Your task to perform on an android device: open app "Spotify" (install if not already installed) Image 0: 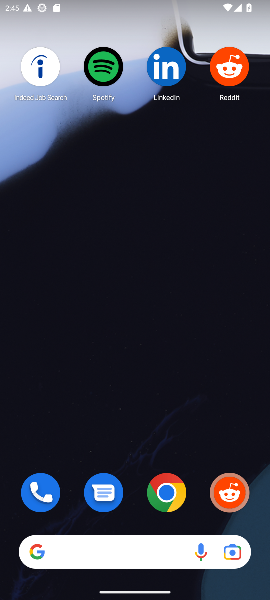
Step 0: drag from (132, 522) to (114, 13)
Your task to perform on an android device: open app "Spotify" (install if not already installed) Image 1: 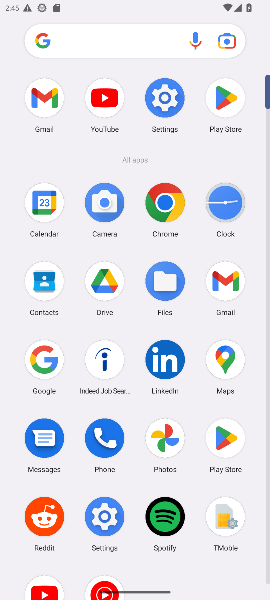
Step 1: click (223, 94)
Your task to perform on an android device: open app "Spotify" (install if not already installed) Image 2: 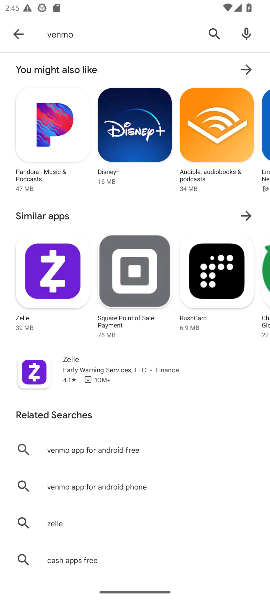
Step 2: click (220, 23)
Your task to perform on an android device: open app "Spotify" (install if not already installed) Image 3: 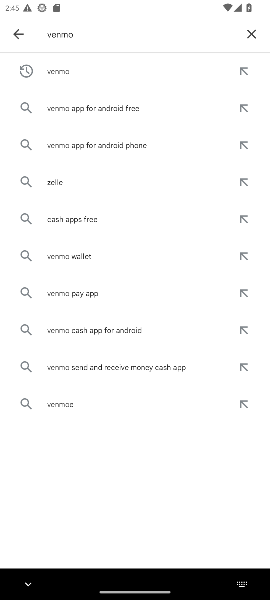
Step 3: click (247, 32)
Your task to perform on an android device: open app "Spotify" (install if not already installed) Image 4: 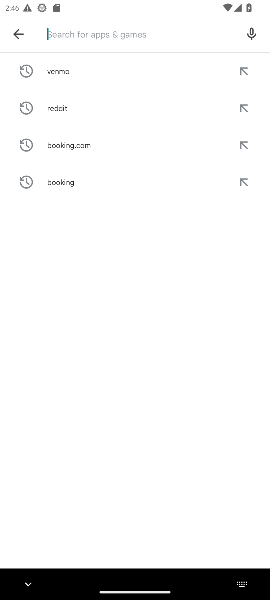
Step 4: type "spotfy"
Your task to perform on an android device: open app "Spotify" (install if not already installed) Image 5: 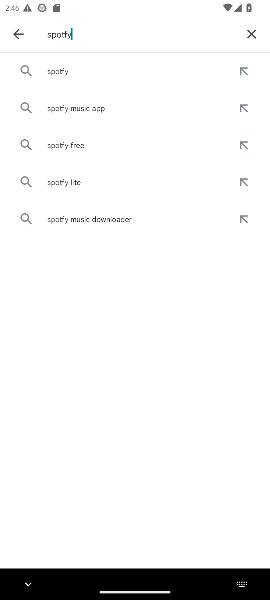
Step 5: click (92, 67)
Your task to perform on an android device: open app "Spotify" (install if not already installed) Image 6: 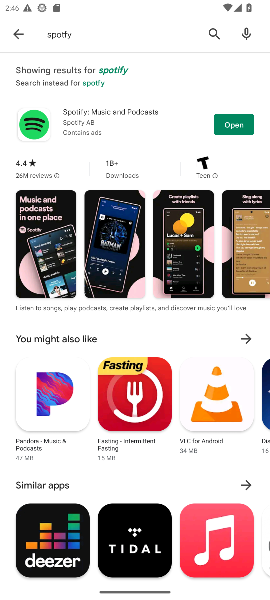
Step 6: click (222, 133)
Your task to perform on an android device: open app "Spotify" (install if not already installed) Image 7: 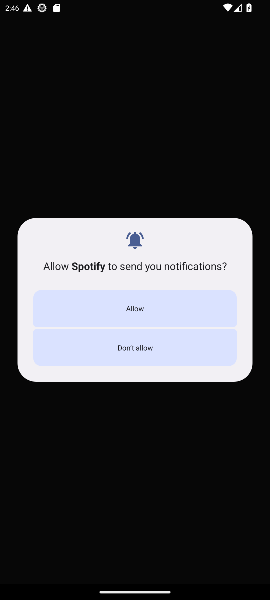
Step 7: click (157, 302)
Your task to perform on an android device: open app "Spotify" (install if not already installed) Image 8: 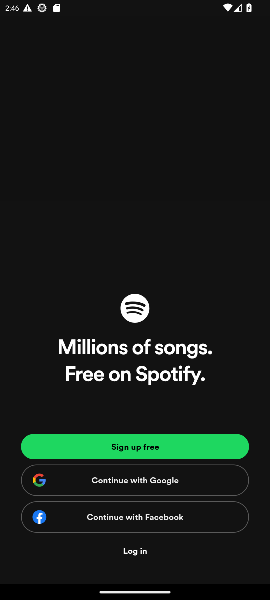
Step 8: task complete